Your task to perform on an android device: find photos in the google photos app Image 0: 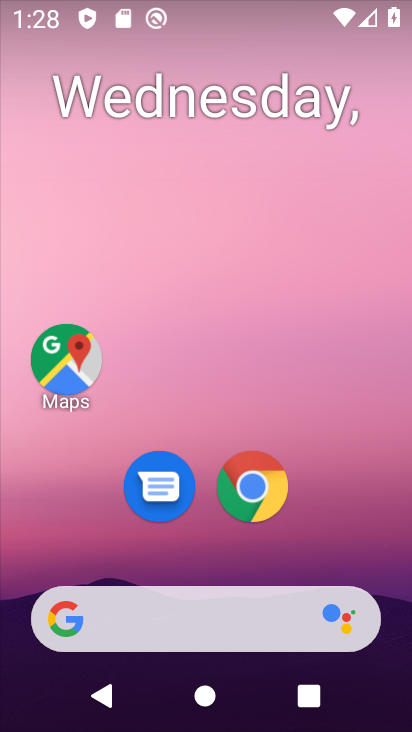
Step 0: drag from (207, 582) to (341, 13)
Your task to perform on an android device: find photos in the google photos app Image 1: 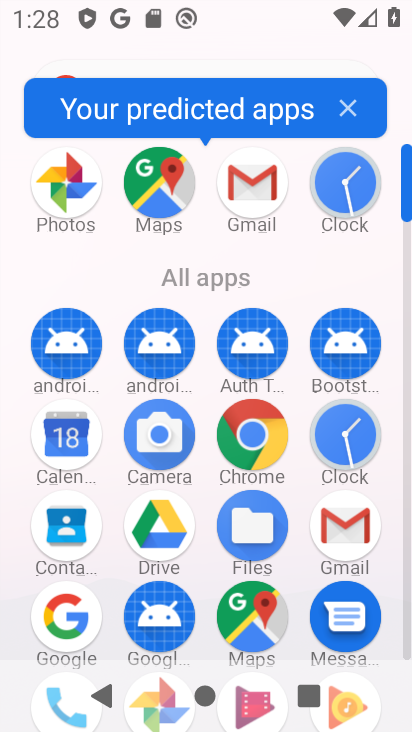
Step 1: click (62, 212)
Your task to perform on an android device: find photos in the google photos app Image 2: 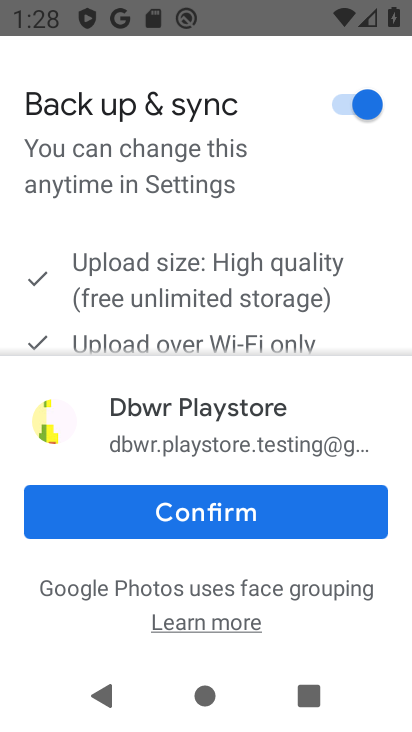
Step 2: click (224, 539)
Your task to perform on an android device: find photos in the google photos app Image 3: 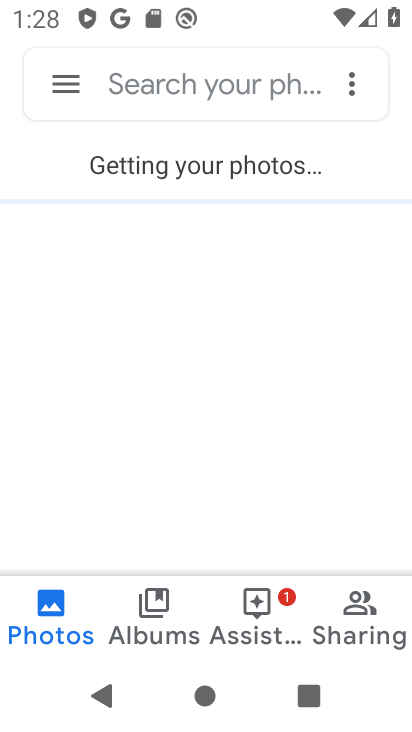
Step 3: task complete